Your task to perform on an android device: create a new album in the google photos Image 0: 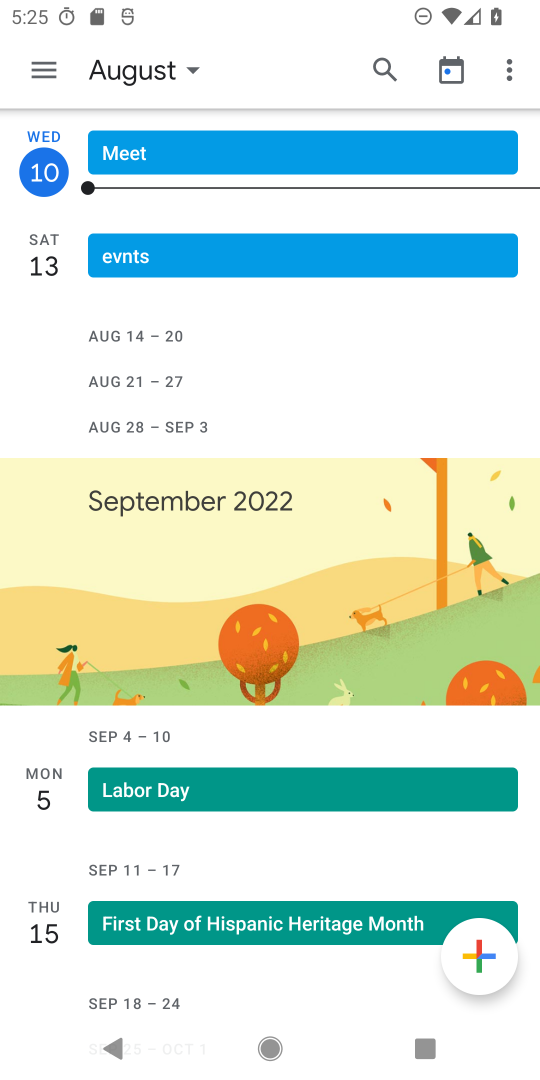
Step 0: press home button
Your task to perform on an android device: create a new album in the google photos Image 1: 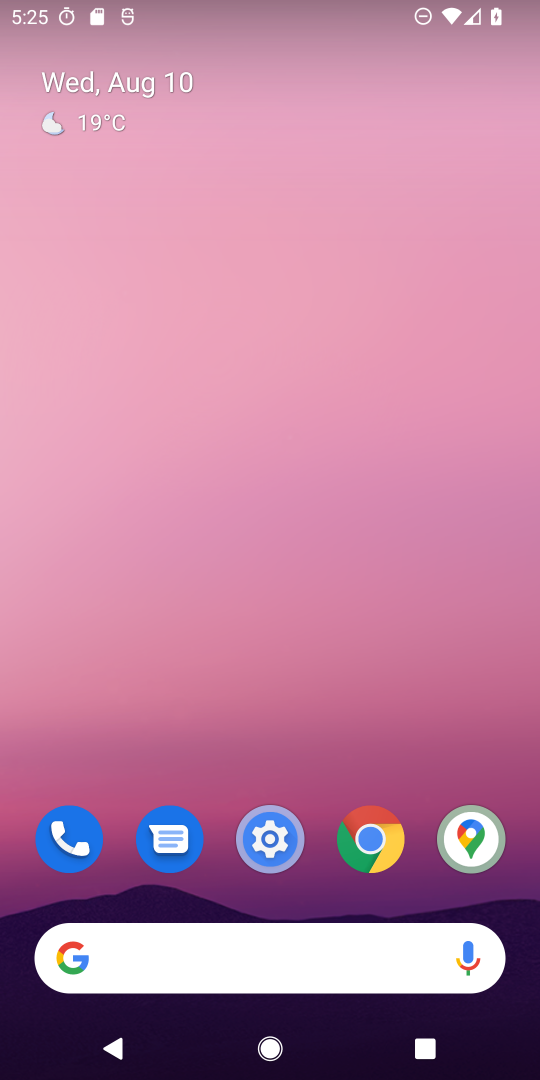
Step 1: drag from (47, 1041) to (258, 390)
Your task to perform on an android device: create a new album in the google photos Image 2: 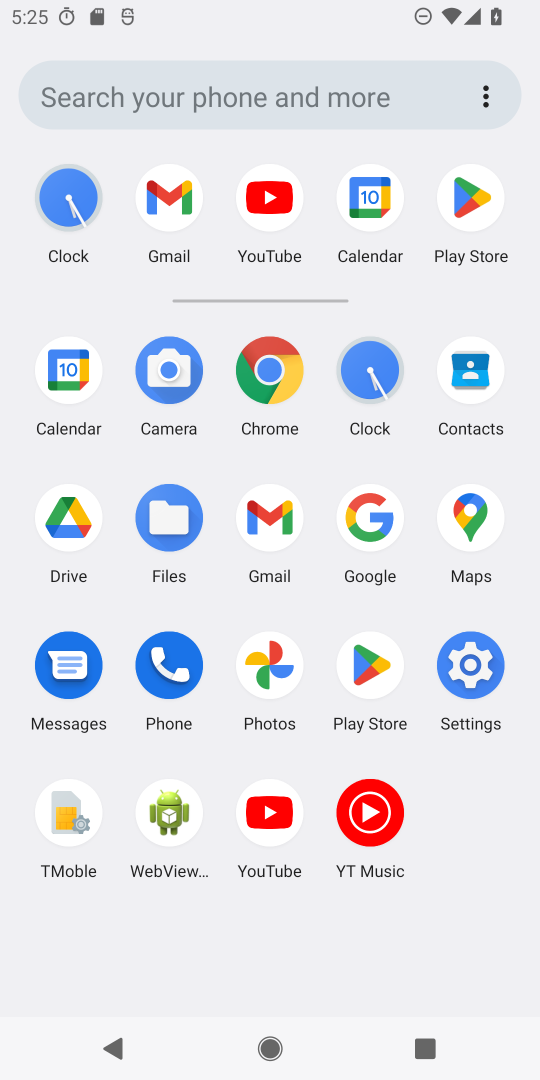
Step 2: click (268, 683)
Your task to perform on an android device: create a new album in the google photos Image 3: 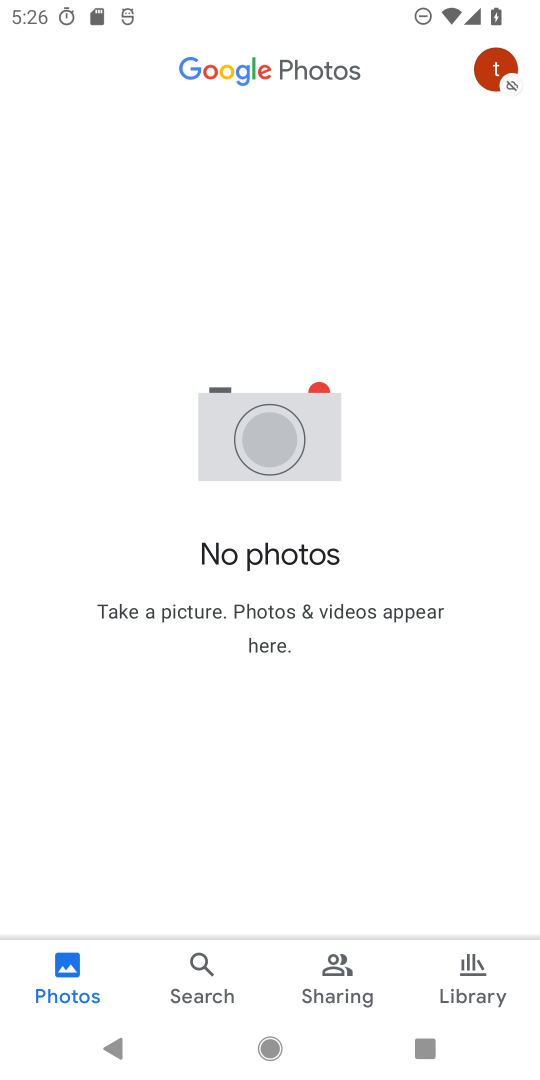
Step 3: task complete